Your task to perform on an android device: Open the stopwatch Image 0: 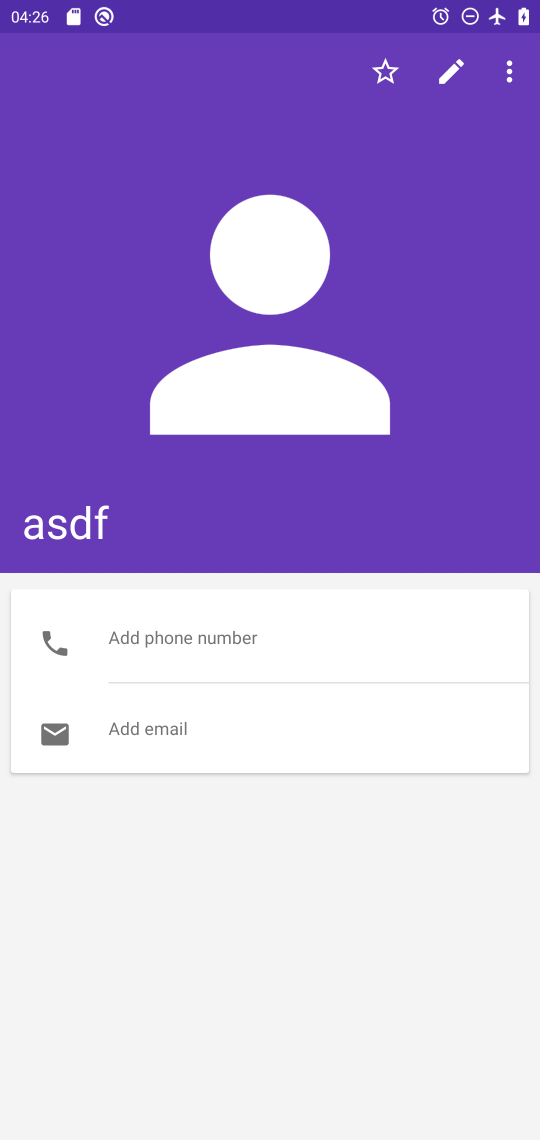
Step 0: press home button
Your task to perform on an android device: Open the stopwatch Image 1: 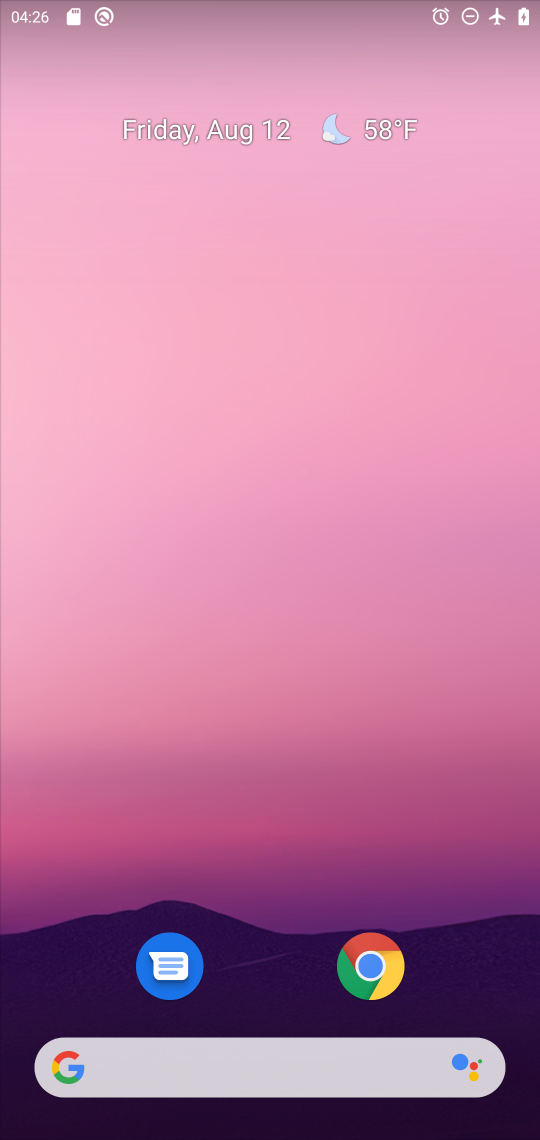
Step 1: drag from (274, 961) to (315, 62)
Your task to perform on an android device: Open the stopwatch Image 2: 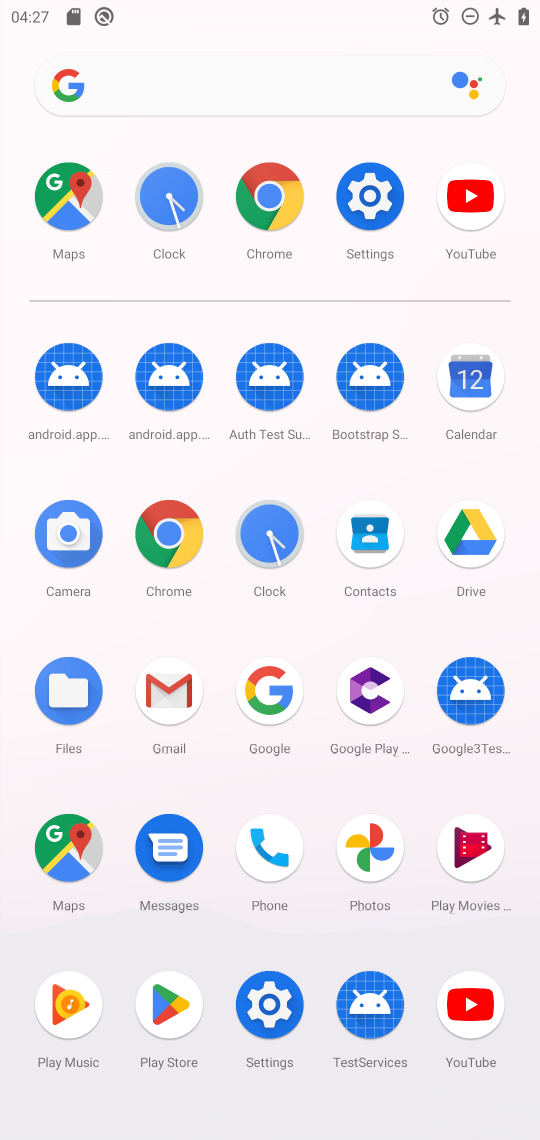
Step 2: click (267, 525)
Your task to perform on an android device: Open the stopwatch Image 3: 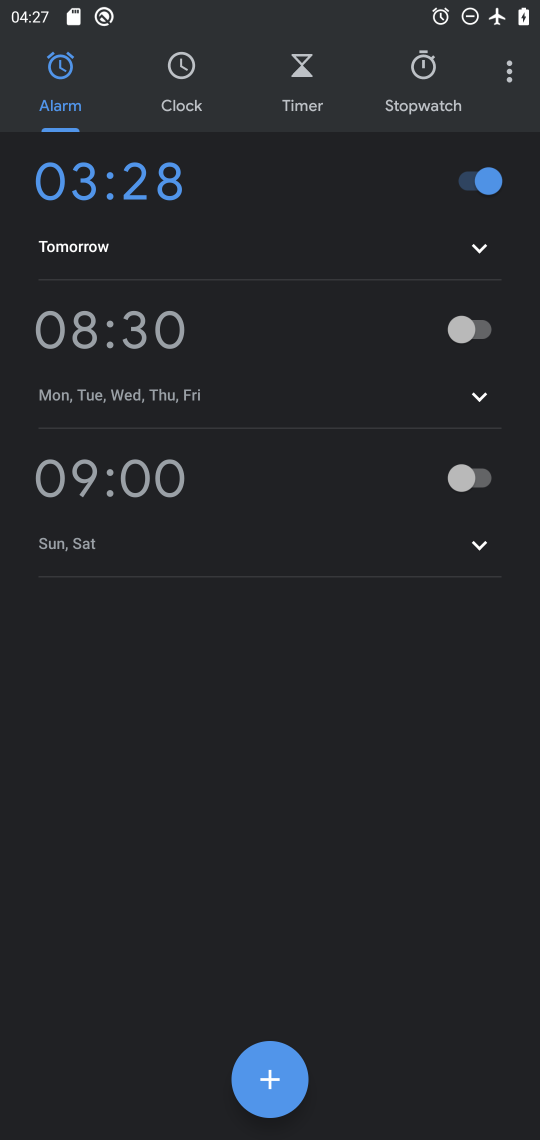
Step 3: click (433, 90)
Your task to perform on an android device: Open the stopwatch Image 4: 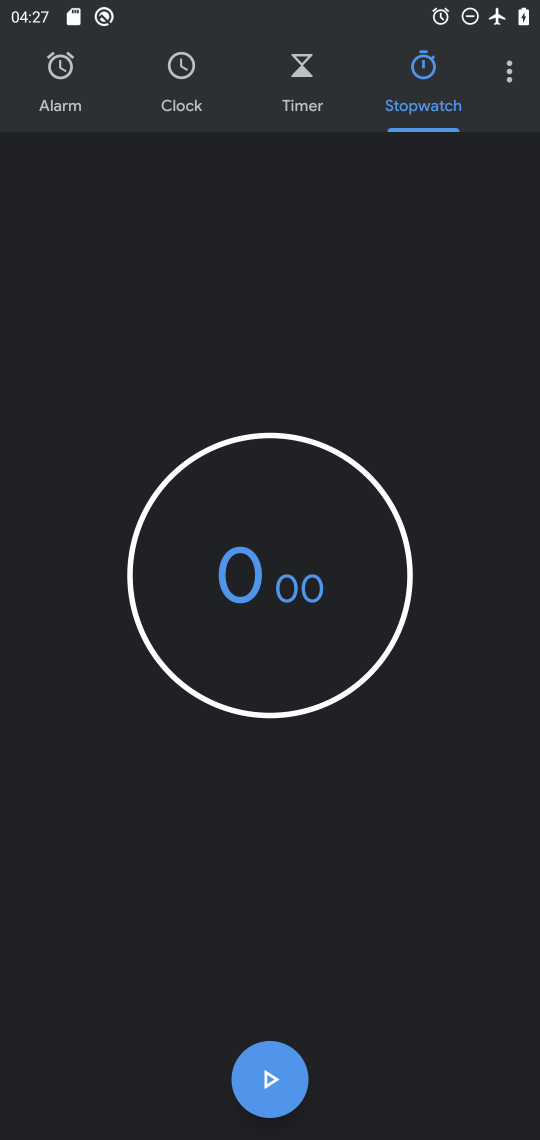
Step 4: task complete